Your task to perform on an android device: change the clock display to analog Image 0: 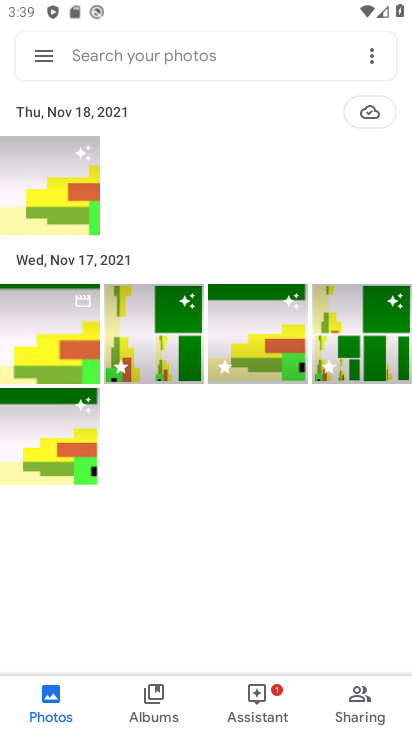
Step 0: press home button
Your task to perform on an android device: change the clock display to analog Image 1: 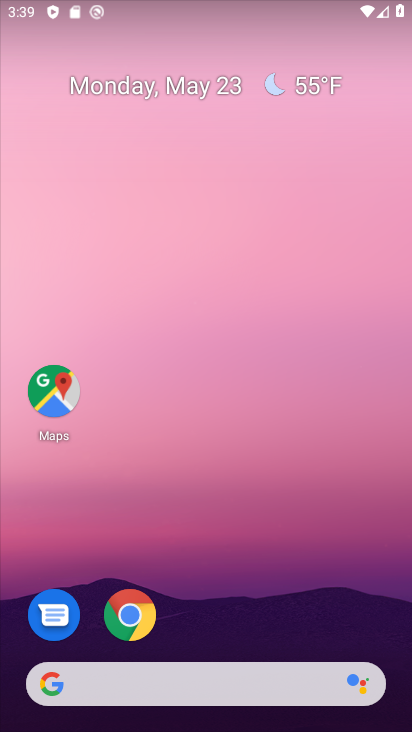
Step 1: drag from (360, 623) to (351, 184)
Your task to perform on an android device: change the clock display to analog Image 2: 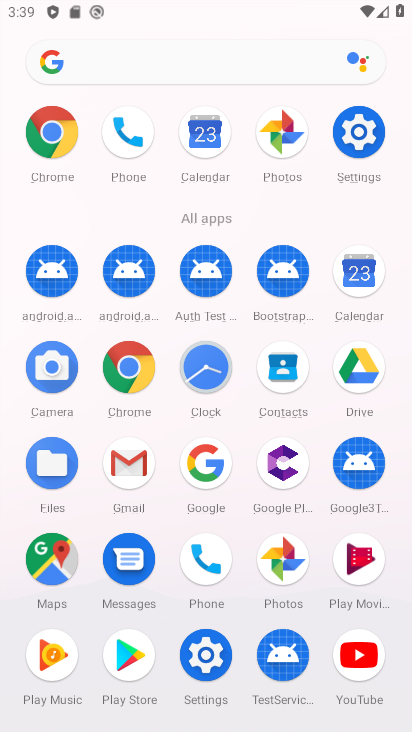
Step 2: drag from (232, 618) to (238, 350)
Your task to perform on an android device: change the clock display to analog Image 3: 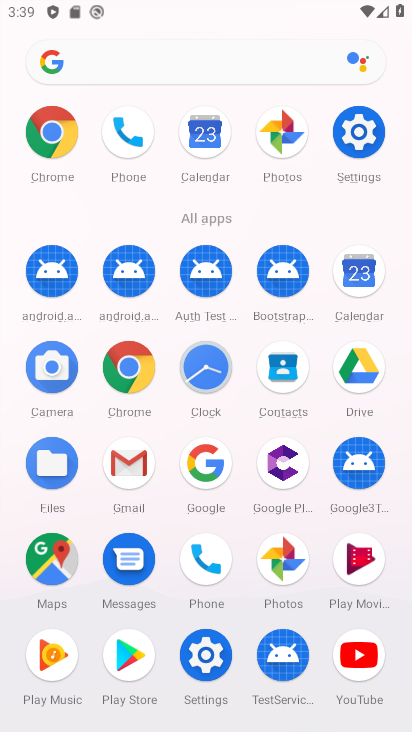
Step 3: drag from (245, 592) to (245, 326)
Your task to perform on an android device: change the clock display to analog Image 4: 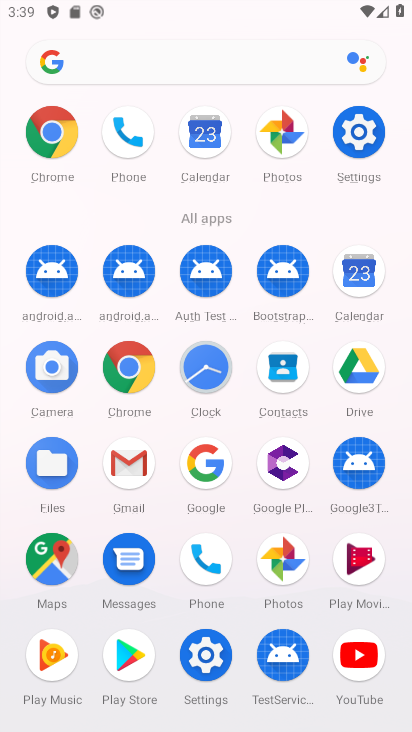
Step 4: click (198, 367)
Your task to perform on an android device: change the clock display to analog Image 5: 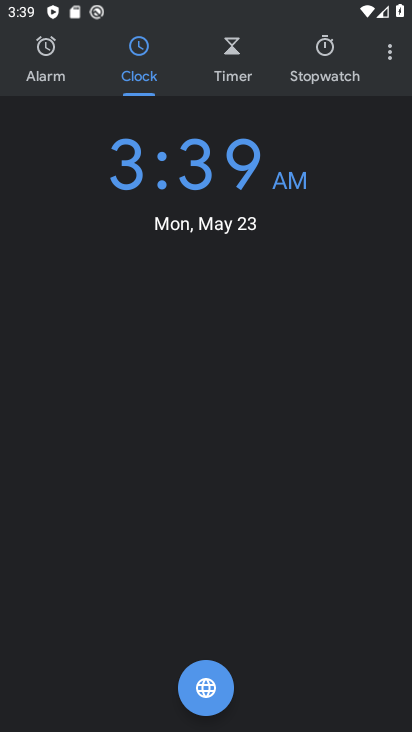
Step 5: click (389, 59)
Your task to perform on an android device: change the clock display to analog Image 6: 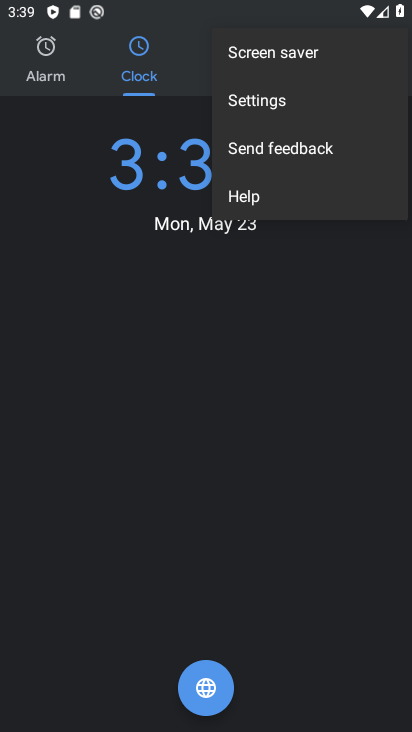
Step 6: click (293, 108)
Your task to perform on an android device: change the clock display to analog Image 7: 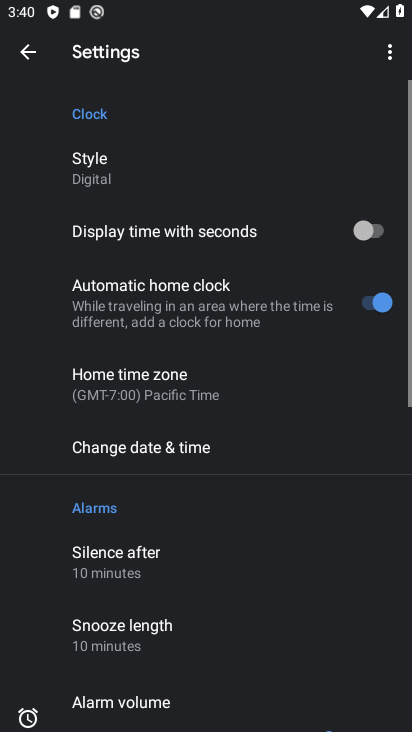
Step 7: drag from (307, 525) to (313, 356)
Your task to perform on an android device: change the clock display to analog Image 8: 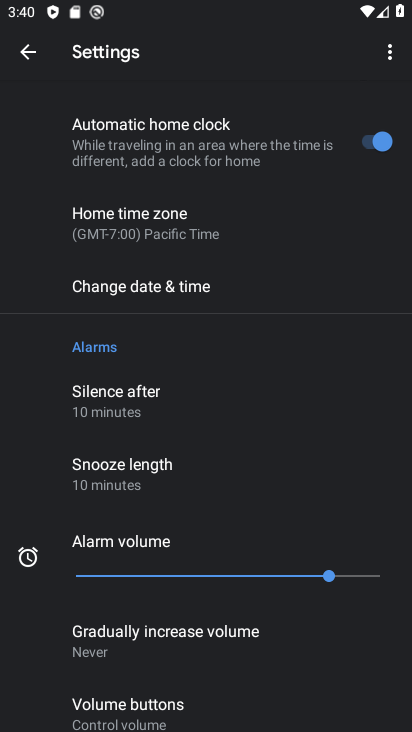
Step 8: drag from (337, 634) to (348, 432)
Your task to perform on an android device: change the clock display to analog Image 9: 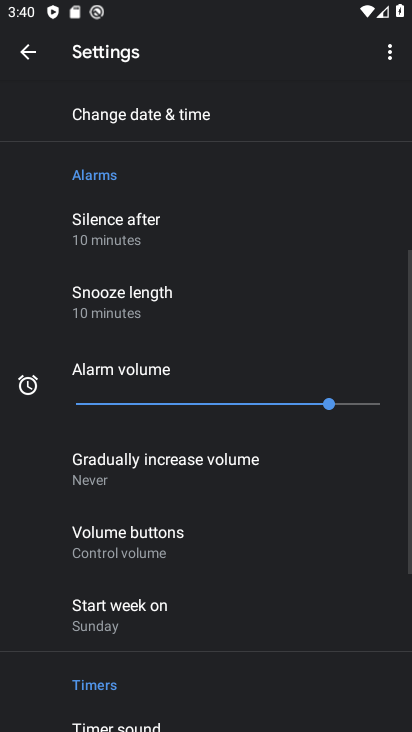
Step 9: drag from (327, 611) to (331, 400)
Your task to perform on an android device: change the clock display to analog Image 10: 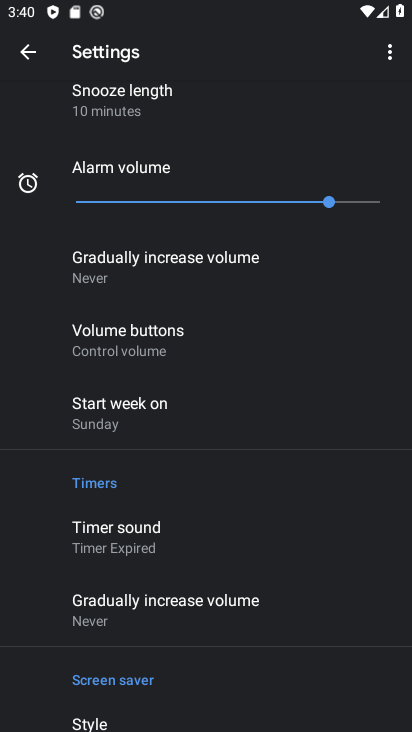
Step 10: drag from (325, 600) to (323, 442)
Your task to perform on an android device: change the clock display to analog Image 11: 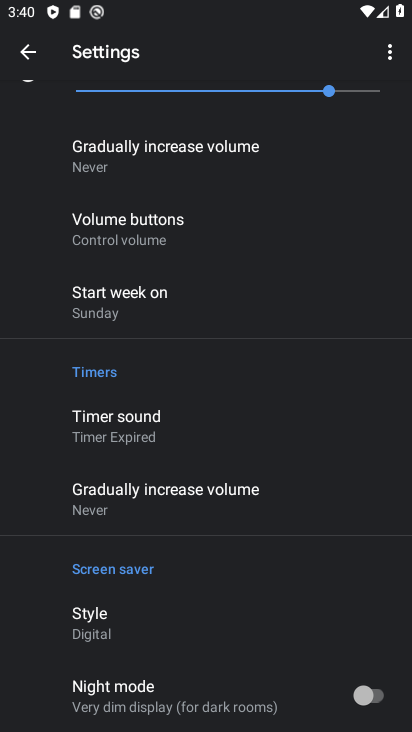
Step 11: drag from (324, 606) to (329, 372)
Your task to perform on an android device: change the clock display to analog Image 12: 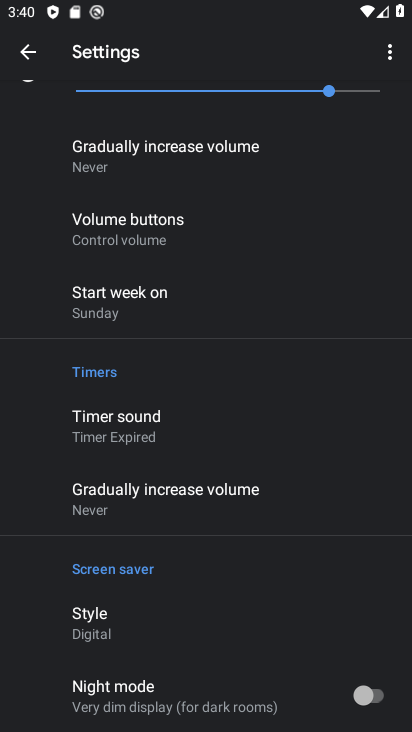
Step 12: drag from (318, 279) to (296, 440)
Your task to perform on an android device: change the clock display to analog Image 13: 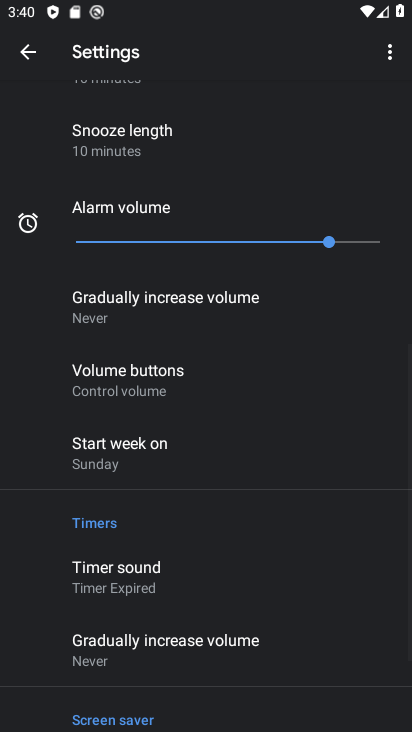
Step 13: drag from (301, 185) to (306, 368)
Your task to perform on an android device: change the clock display to analog Image 14: 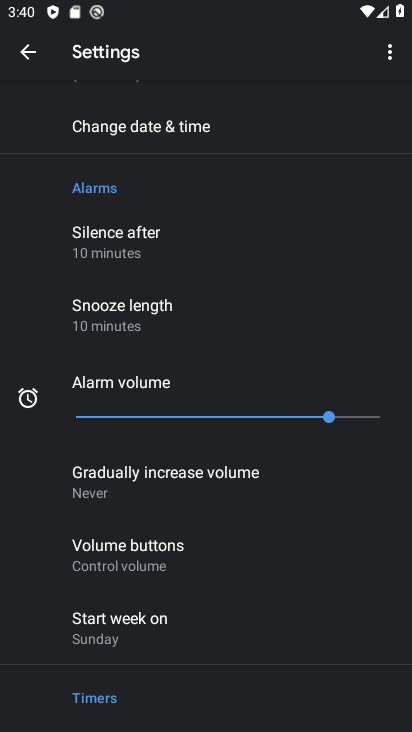
Step 14: drag from (319, 226) to (304, 467)
Your task to perform on an android device: change the clock display to analog Image 15: 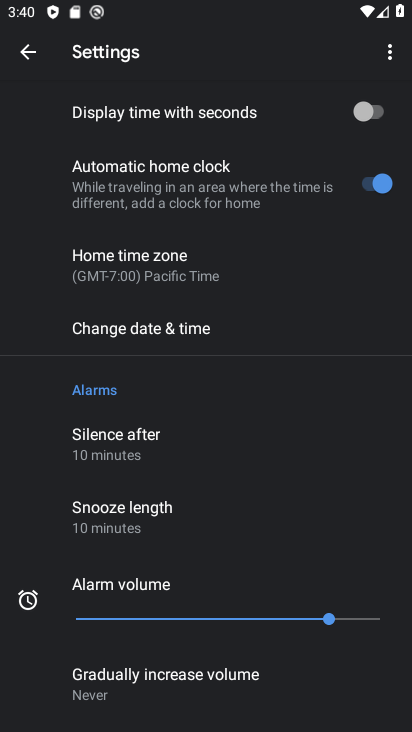
Step 15: drag from (300, 234) to (285, 423)
Your task to perform on an android device: change the clock display to analog Image 16: 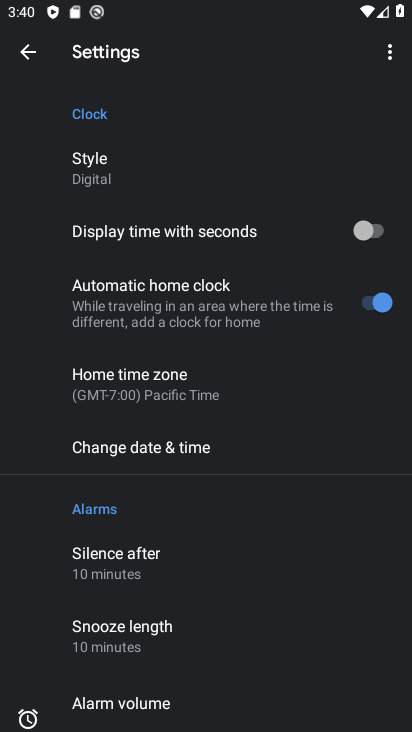
Step 16: drag from (286, 196) to (286, 389)
Your task to perform on an android device: change the clock display to analog Image 17: 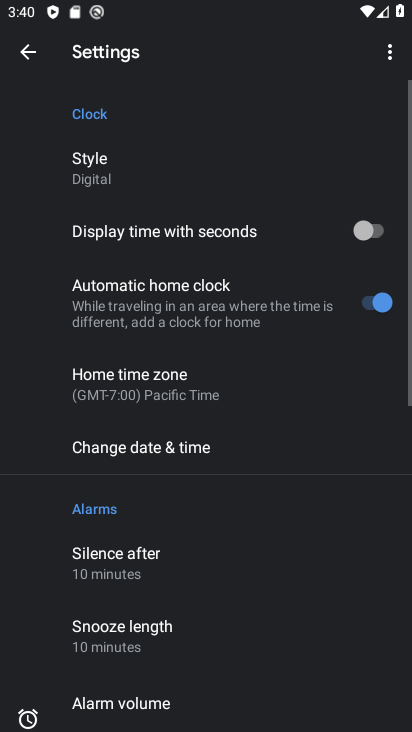
Step 17: click (123, 186)
Your task to perform on an android device: change the clock display to analog Image 18: 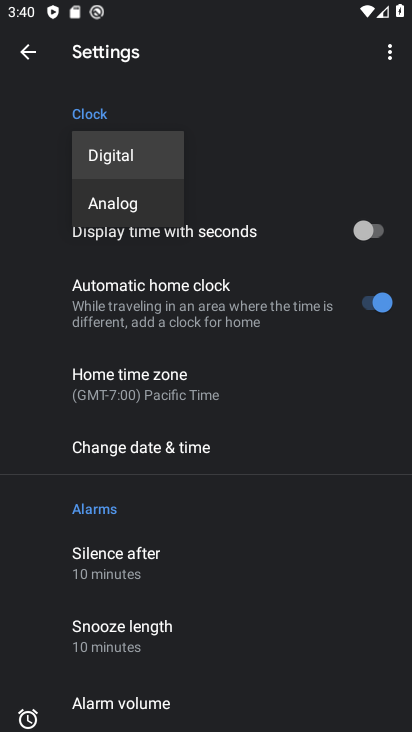
Step 18: click (142, 207)
Your task to perform on an android device: change the clock display to analog Image 19: 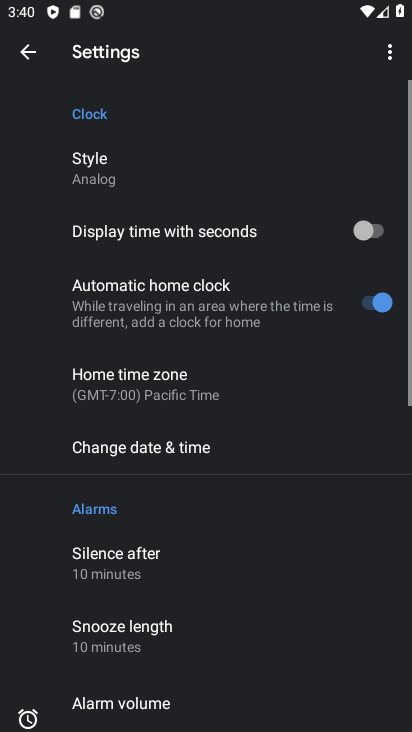
Step 19: task complete